Your task to perform on an android device: Show me popular games on the Play Store Image 0: 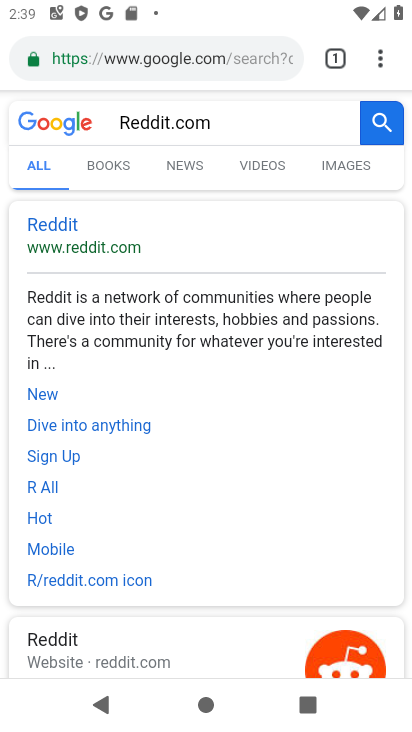
Step 0: press home button
Your task to perform on an android device: Show me popular games on the Play Store Image 1: 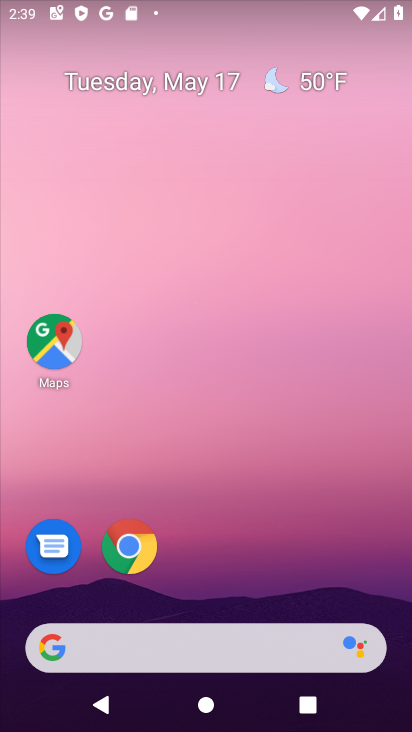
Step 1: drag from (198, 597) to (238, 122)
Your task to perform on an android device: Show me popular games on the Play Store Image 2: 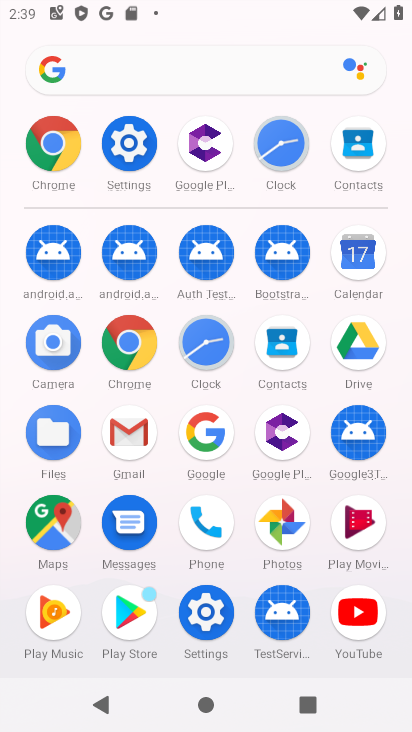
Step 2: click (123, 628)
Your task to perform on an android device: Show me popular games on the Play Store Image 3: 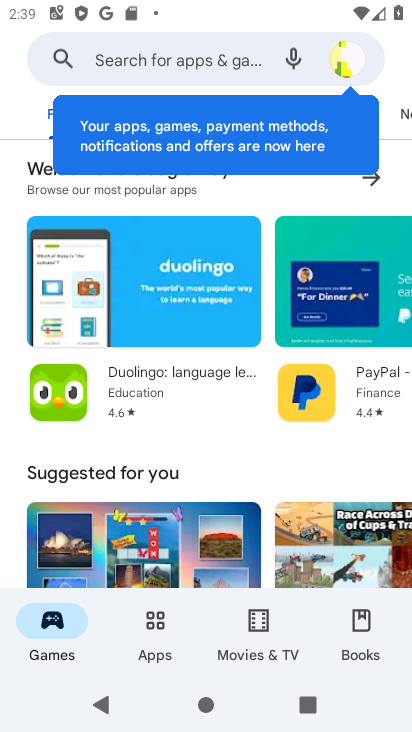
Step 3: click (38, 106)
Your task to perform on an android device: Show me popular games on the Play Store Image 4: 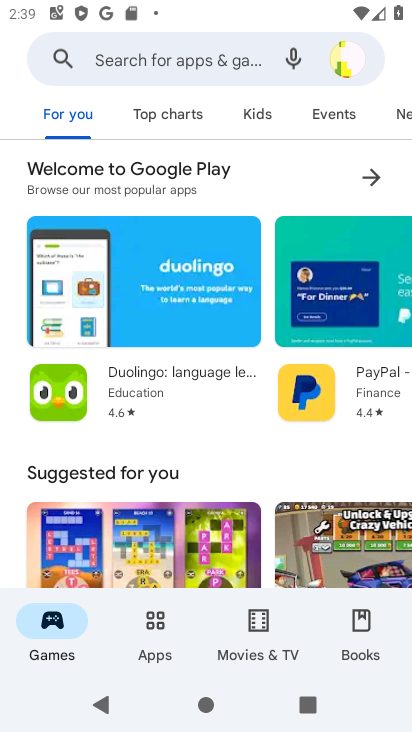
Step 4: click (156, 120)
Your task to perform on an android device: Show me popular games on the Play Store Image 5: 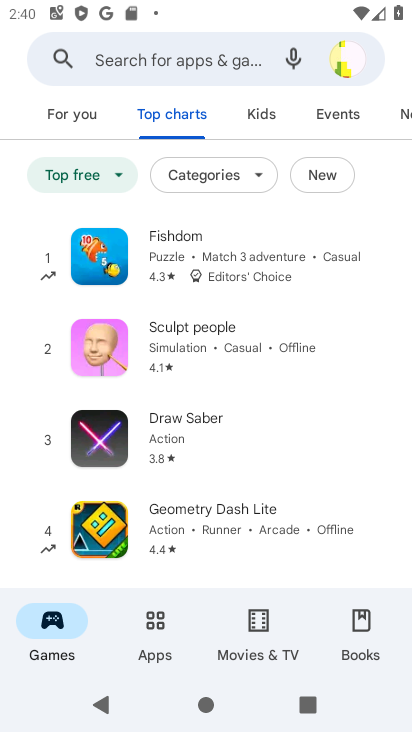
Step 5: task complete